Your task to perform on an android device: open chrome and create a bookmark for the current page Image 0: 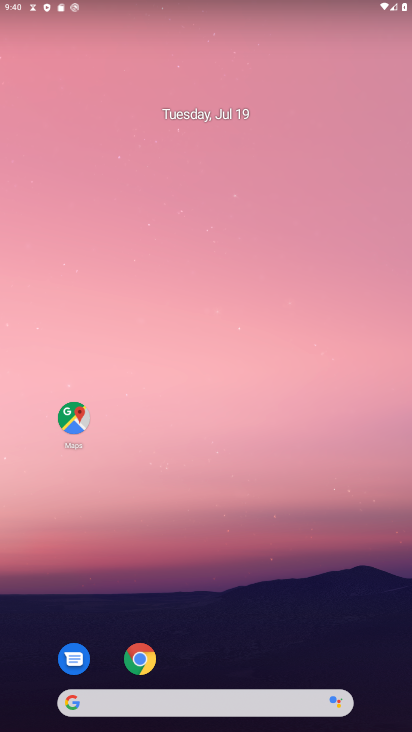
Step 0: drag from (274, 648) to (268, 0)
Your task to perform on an android device: open chrome and create a bookmark for the current page Image 1: 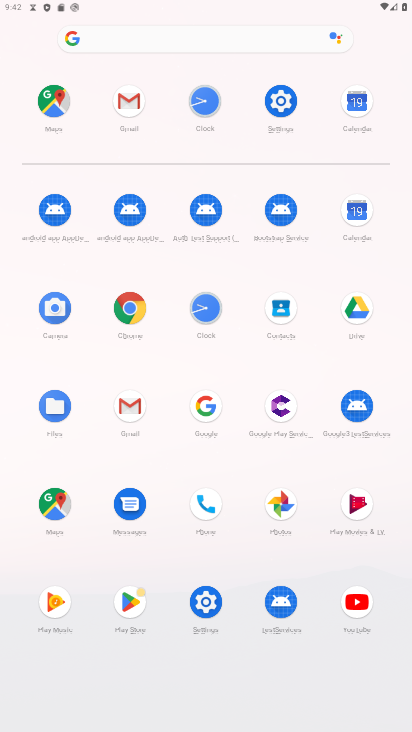
Step 1: drag from (104, 224) to (118, 5)
Your task to perform on an android device: open chrome and create a bookmark for the current page Image 2: 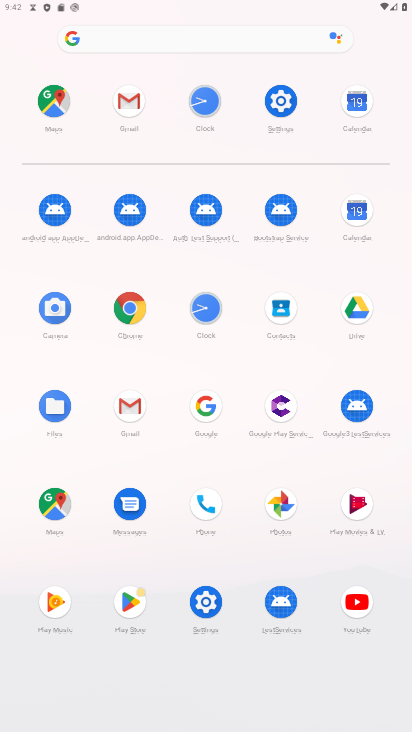
Step 2: click (165, 301)
Your task to perform on an android device: open chrome and create a bookmark for the current page Image 3: 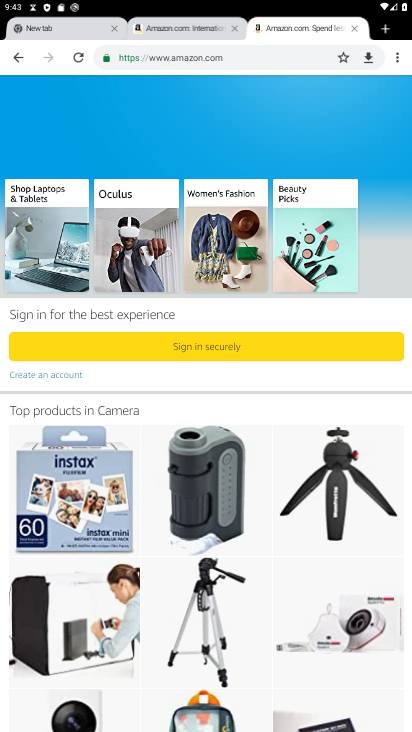
Step 3: click (336, 61)
Your task to perform on an android device: open chrome and create a bookmark for the current page Image 4: 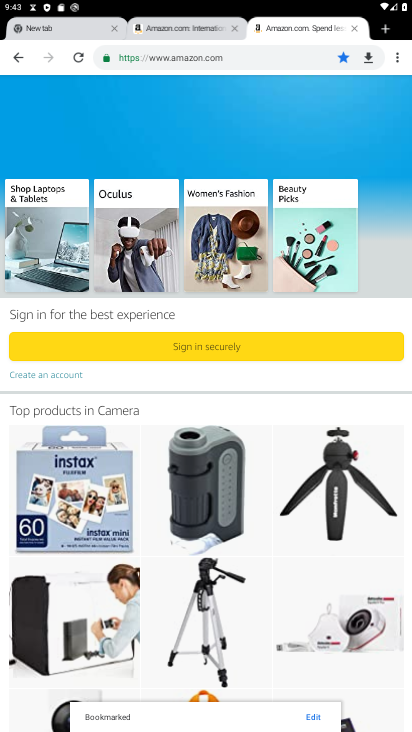
Step 4: task complete